Your task to perform on an android device: Go to CNN.com Image 0: 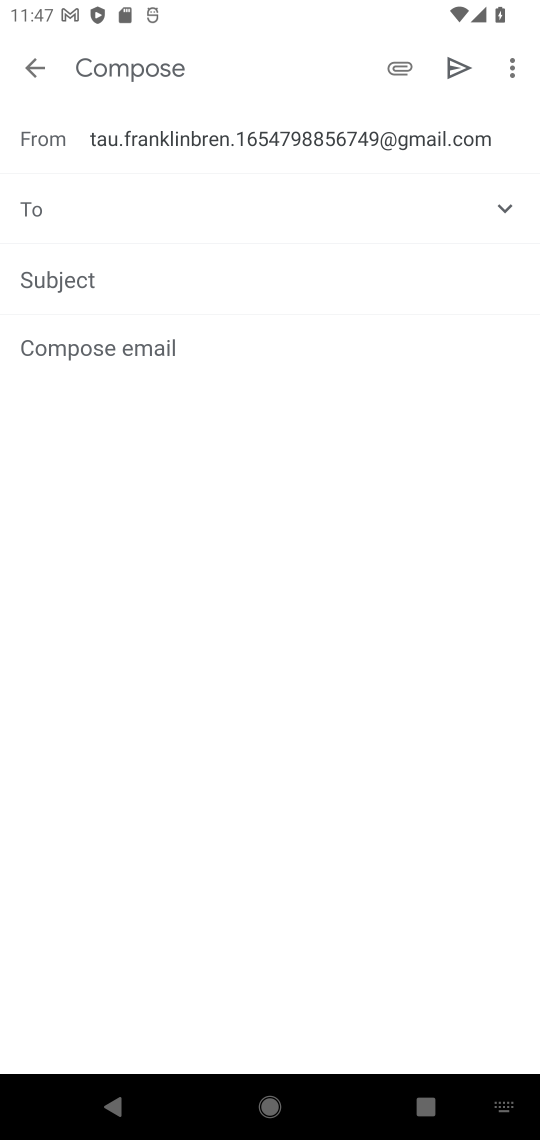
Step 0: press home button
Your task to perform on an android device: Go to CNN.com Image 1: 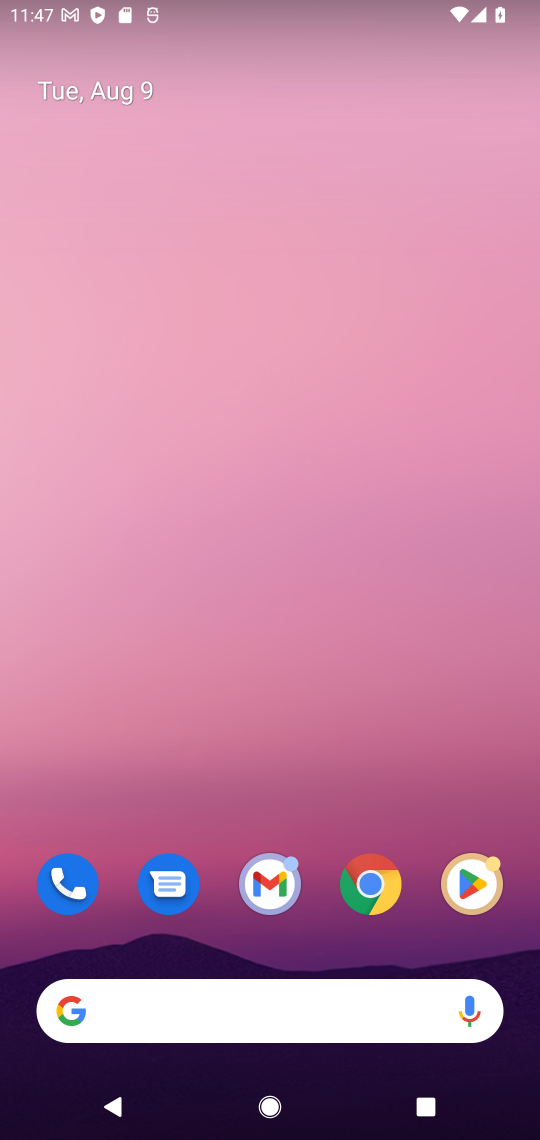
Step 1: click (372, 884)
Your task to perform on an android device: Go to CNN.com Image 2: 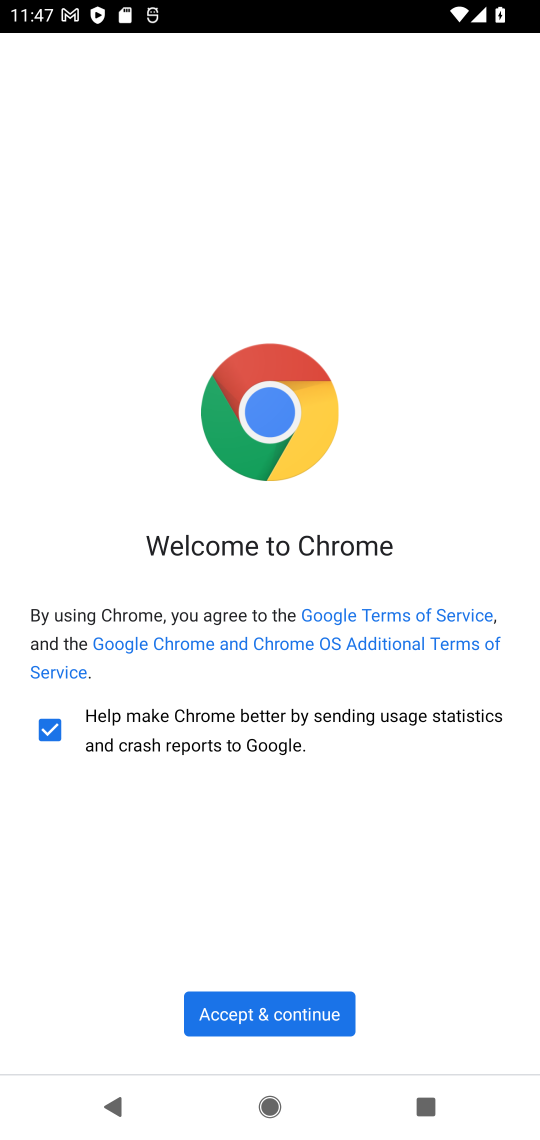
Step 2: click (252, 1011)
Your task to perform on an android device: Go to CNN.com Image 3: 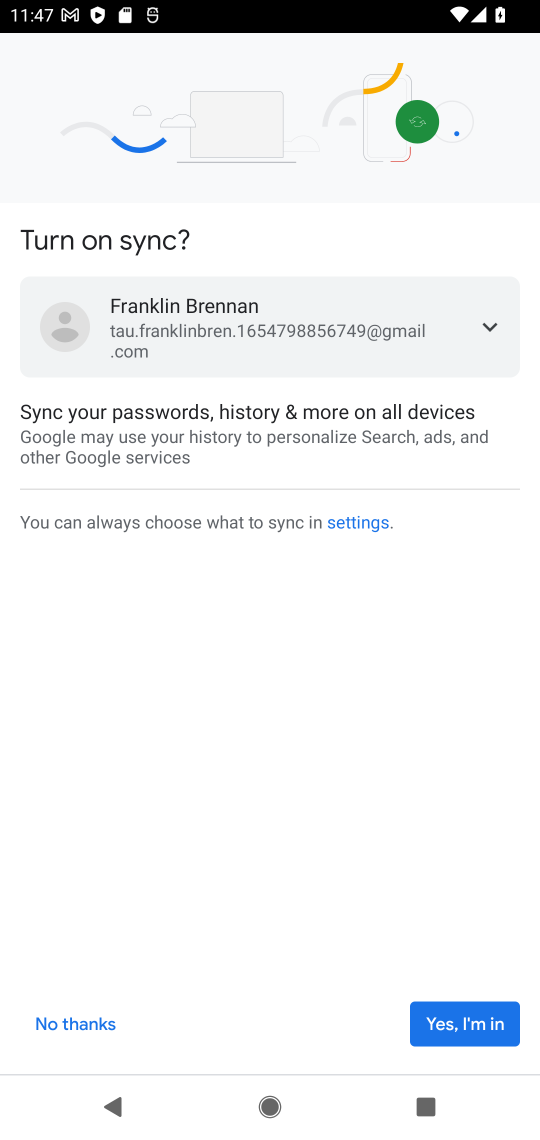
Step 3: click (448, 1027)
Your task to perform on an android device: Go to CNN.com Image 4: 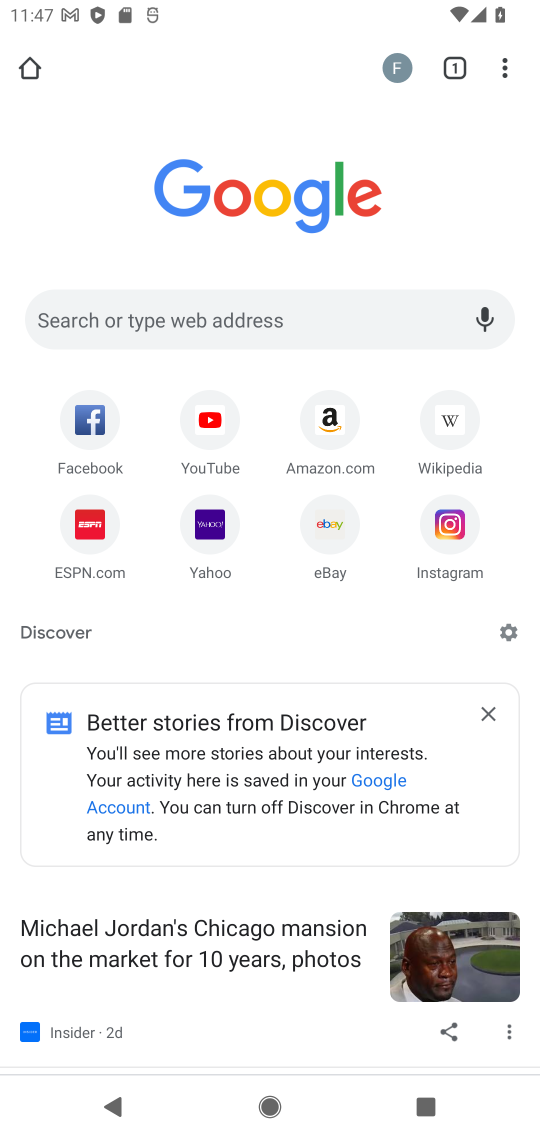
Step 4: click (324, 297)
Your task to perform on an android device: Go to CNN.com Image 5: 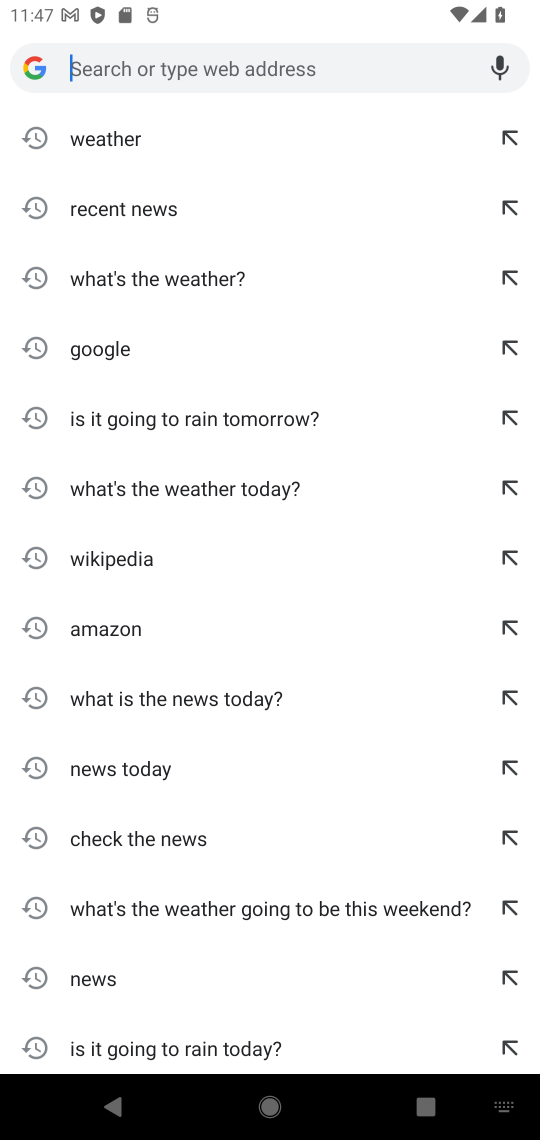
Step 5: type "www.cnn.com"
Your task to perform on an android device: Go to CNN.com Image 6: 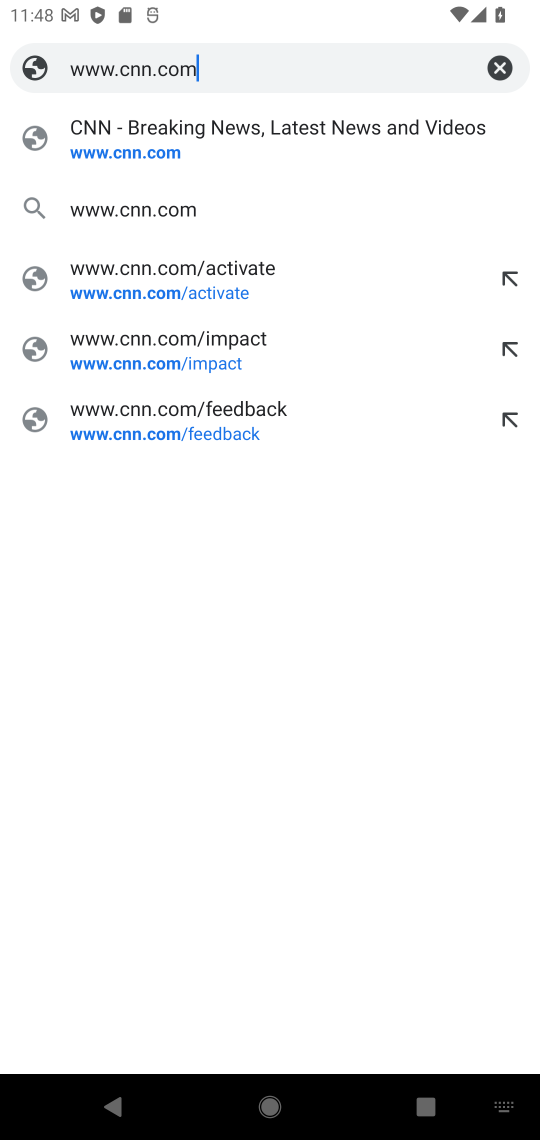
Step 6: click (173, 136)
Your task to perform on an android device: Go to CNN.com Image 7: 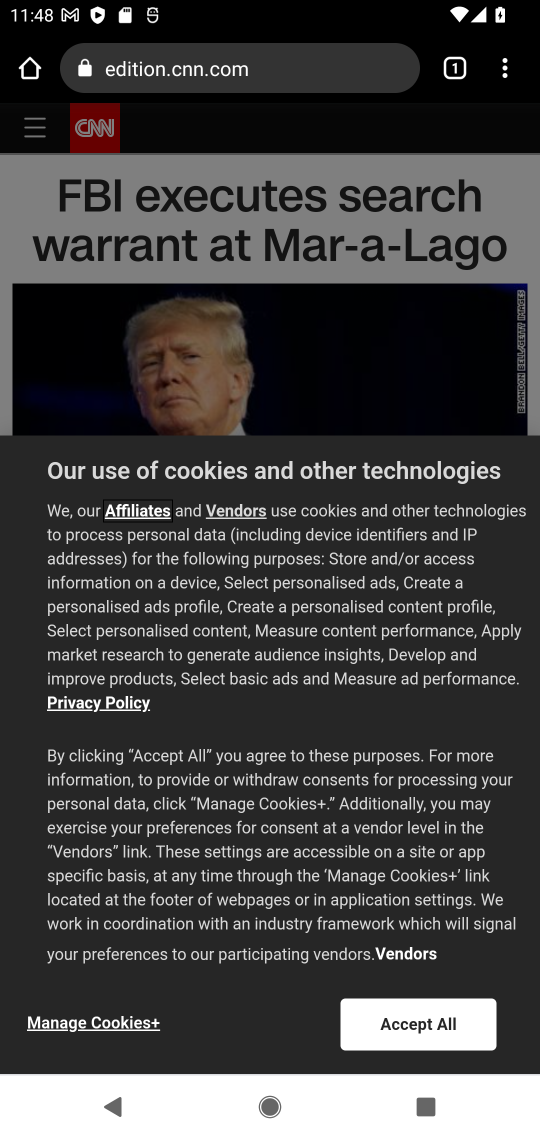
Step 7: task complete